Your task to perform on an android device: Show me popular games on the Play Store Image 0: 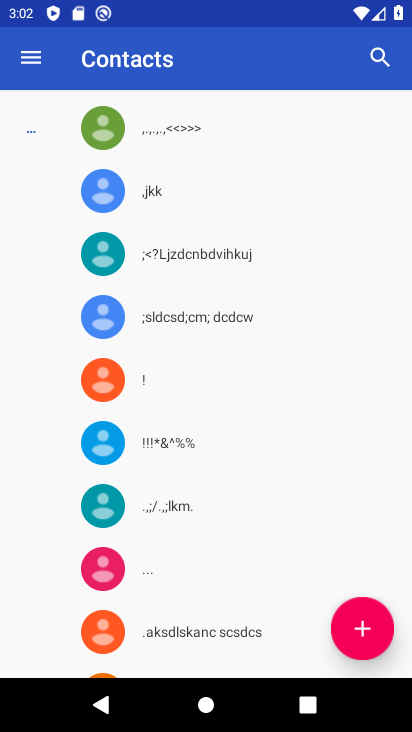
Step 0: press home button
Your task to perform on an android device: Show me popular games on the Play Store Image 1: 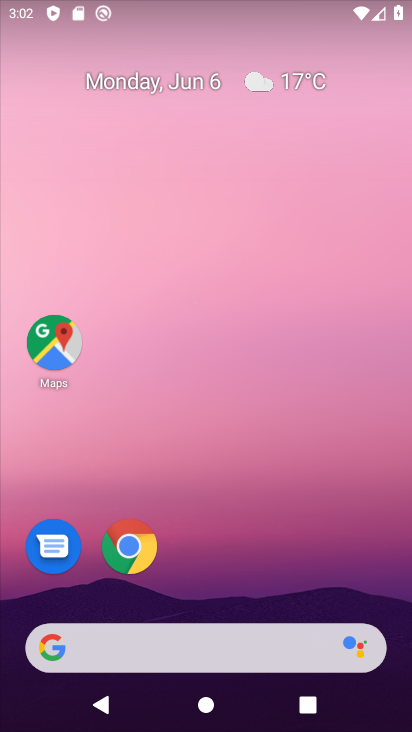
Step 1: drag from (337, 553) to (397, 83)
Your task to perform on an android device: Show me popular games on the Play Store Image 2: 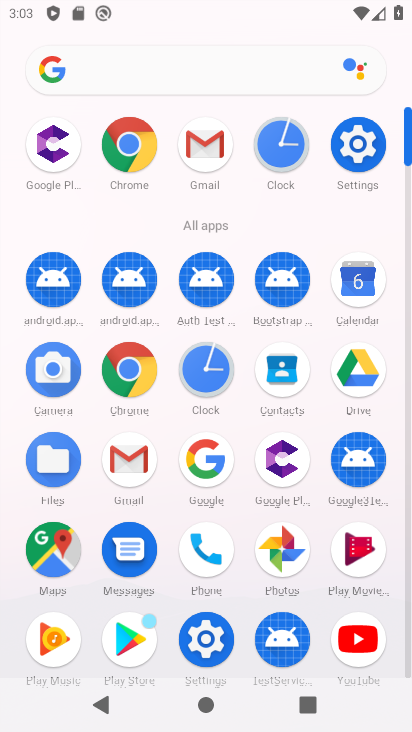
Step 2: click (129, 620)
Your task to perform on an android device: Show me popular games on the Play Store Image 3: 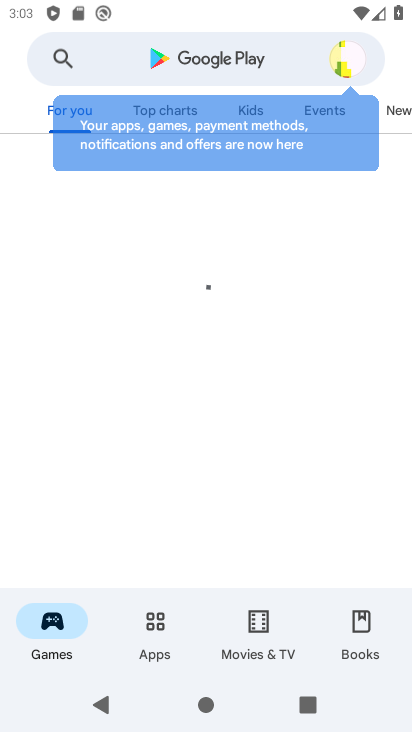
Step 3: click (201, 51)
Your task to perform on an android device: Show me popular games on the Play Store Image 4: 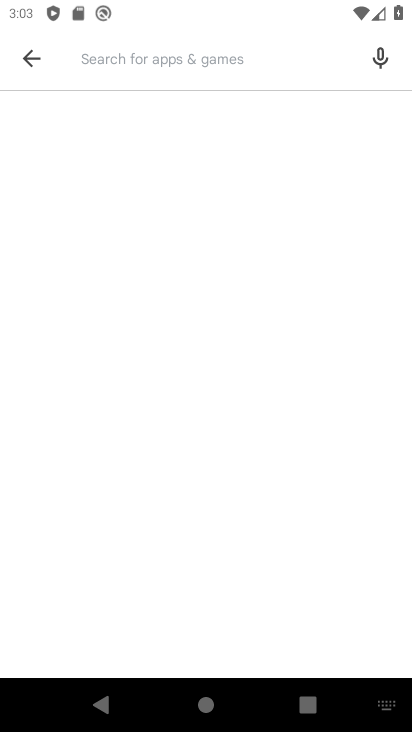
Step 4: type "popular games"
Your task to perform on an android device: Show me popular games on the Play Store Image 5: 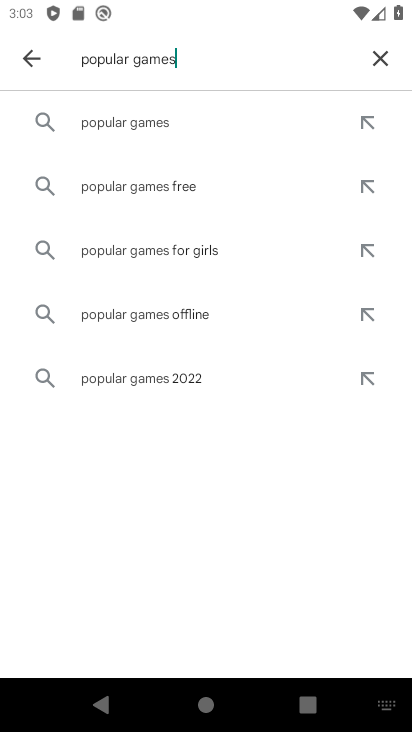
Step 5: click (152, 117)
Your task to perform on an android device: Show me popular games on the Play Store Image 6: 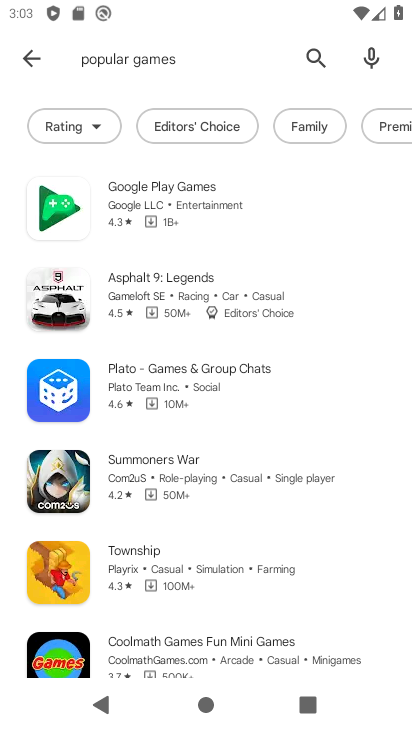
Step 6: task complete